Your task to perform on an android device: open app "NewsBreak: Local News & Alerts" Image 0: 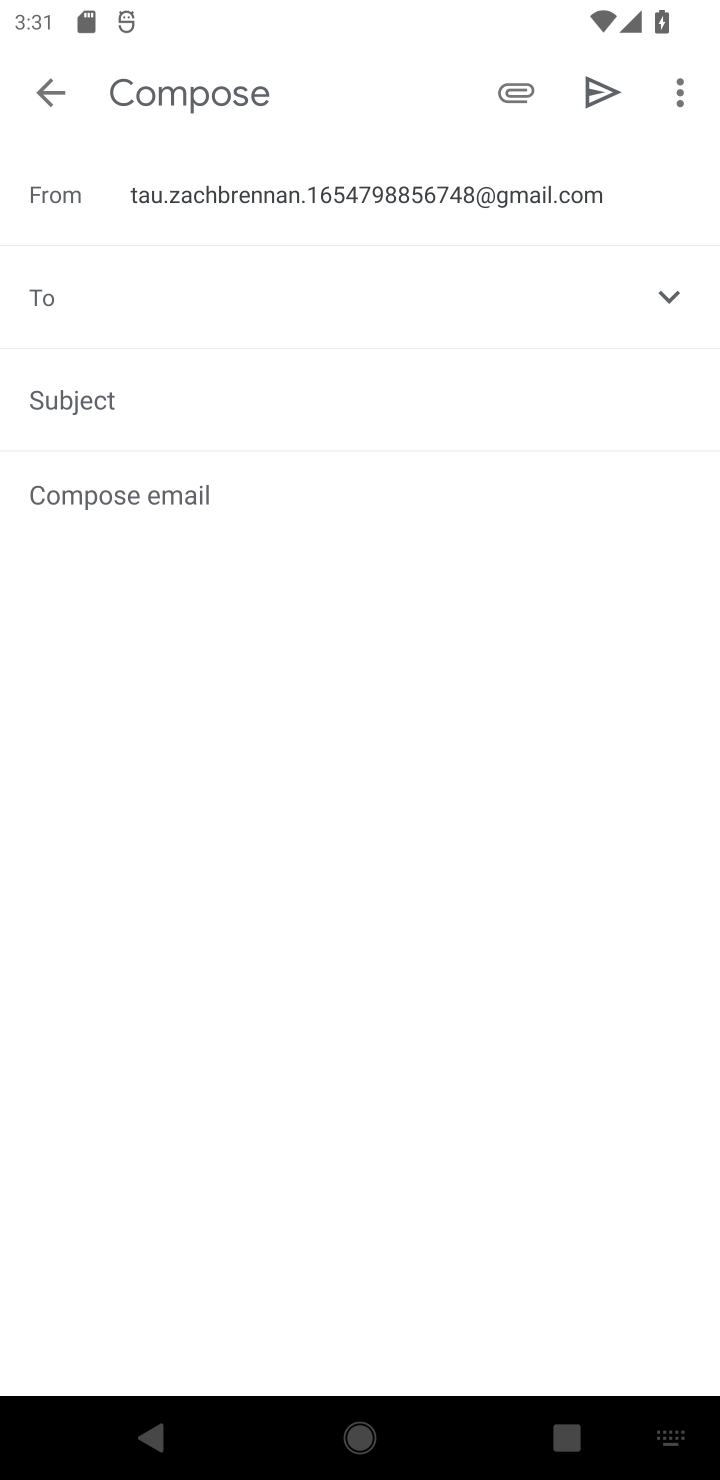
Step 0: press home button
Your task to perform on an android device: open app "NewsBreak: Local News & Alerts" Image 1: 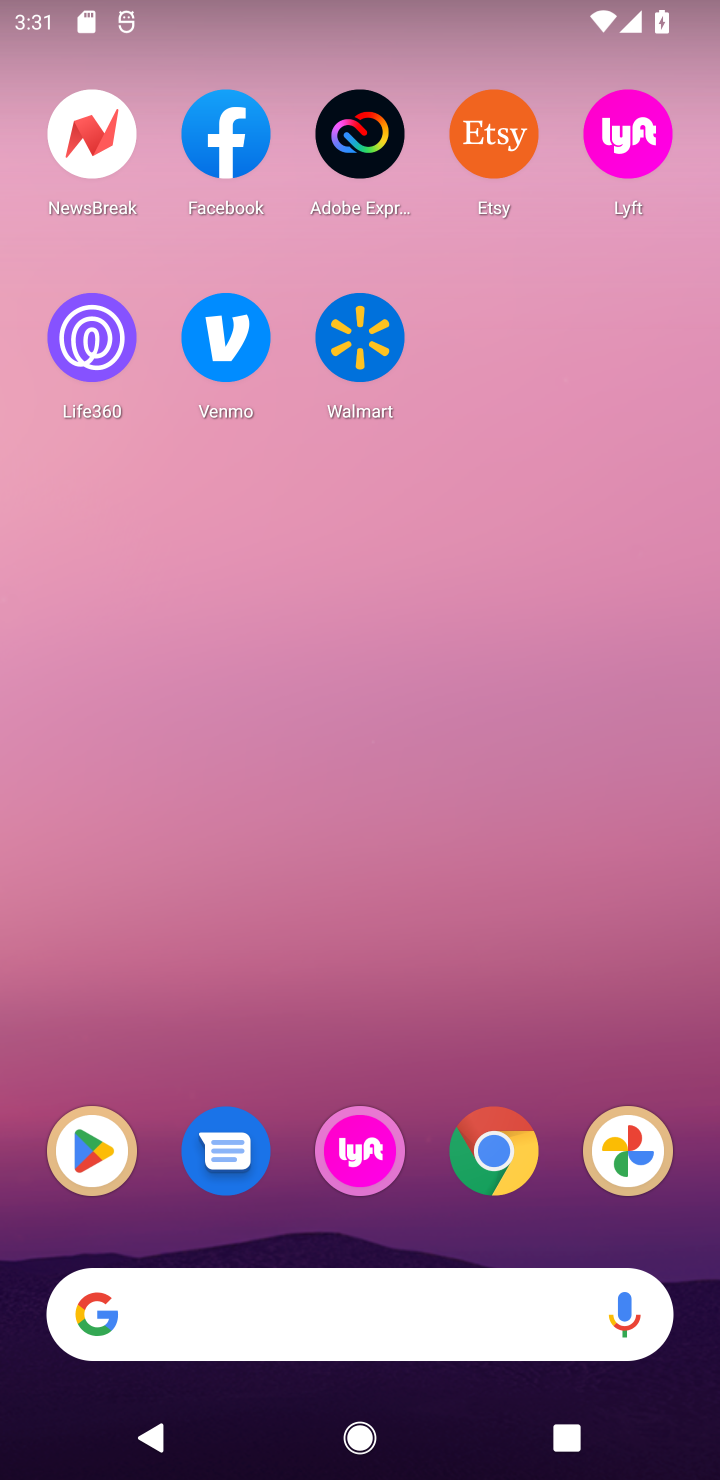
Step 1: drag from (457, 1361) to (457, 441)
Your task to perform on an android device: open app "NewsBreak: Local News & Alerts" Image 2: 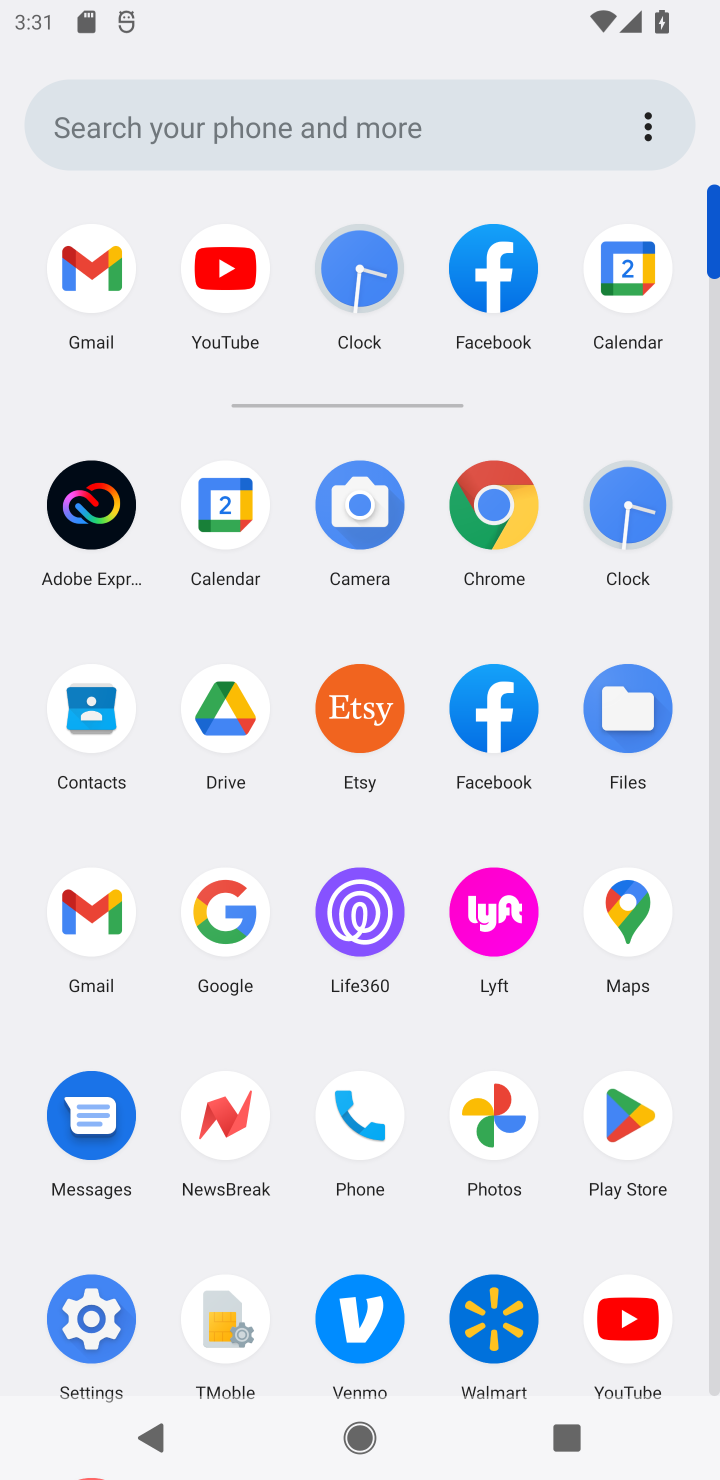
Step 2: click (629, 1099)
Your task to perform on an android device: open app "NewsBreak: Local News & Alerts" Image 3: 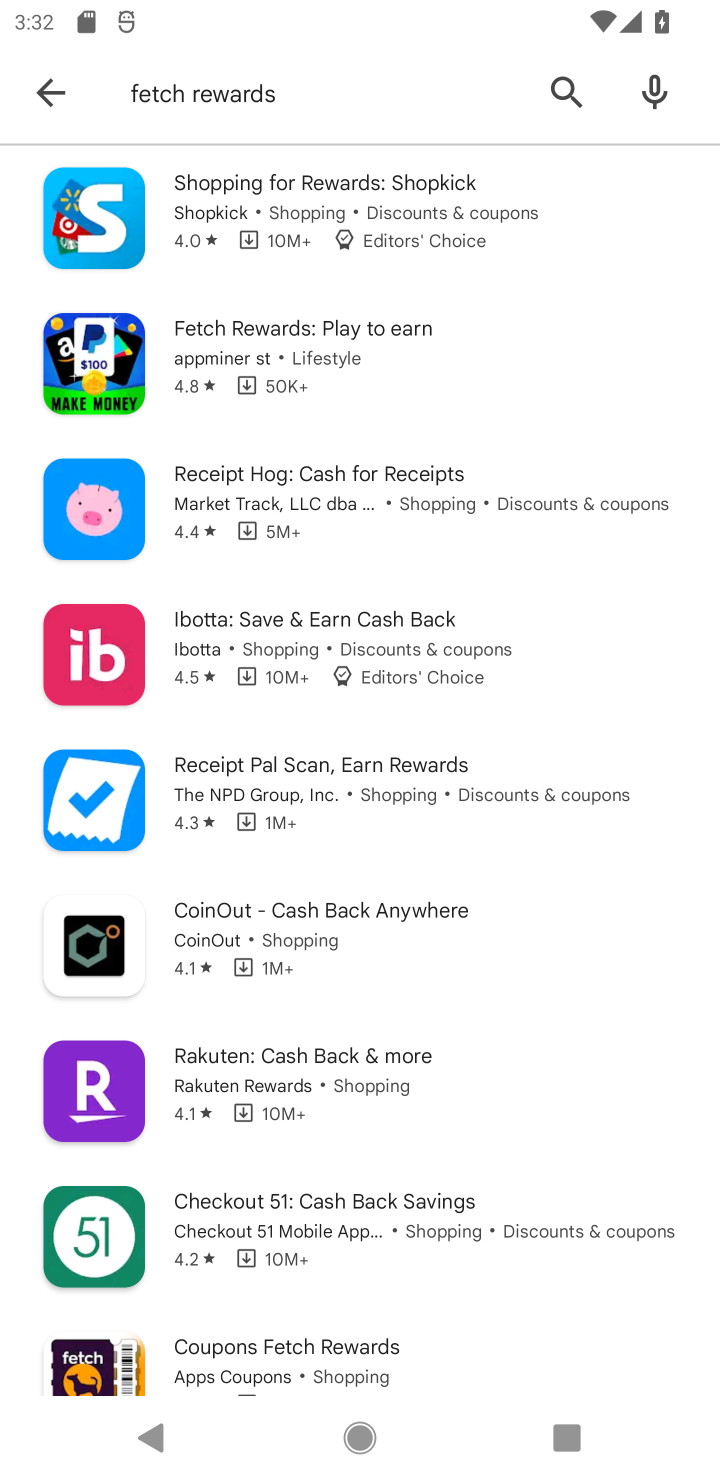
Step 3: click (561, 87)
Your task to perform on an android device: open app "NewsBreak: Local News & Alerts" Image 4: 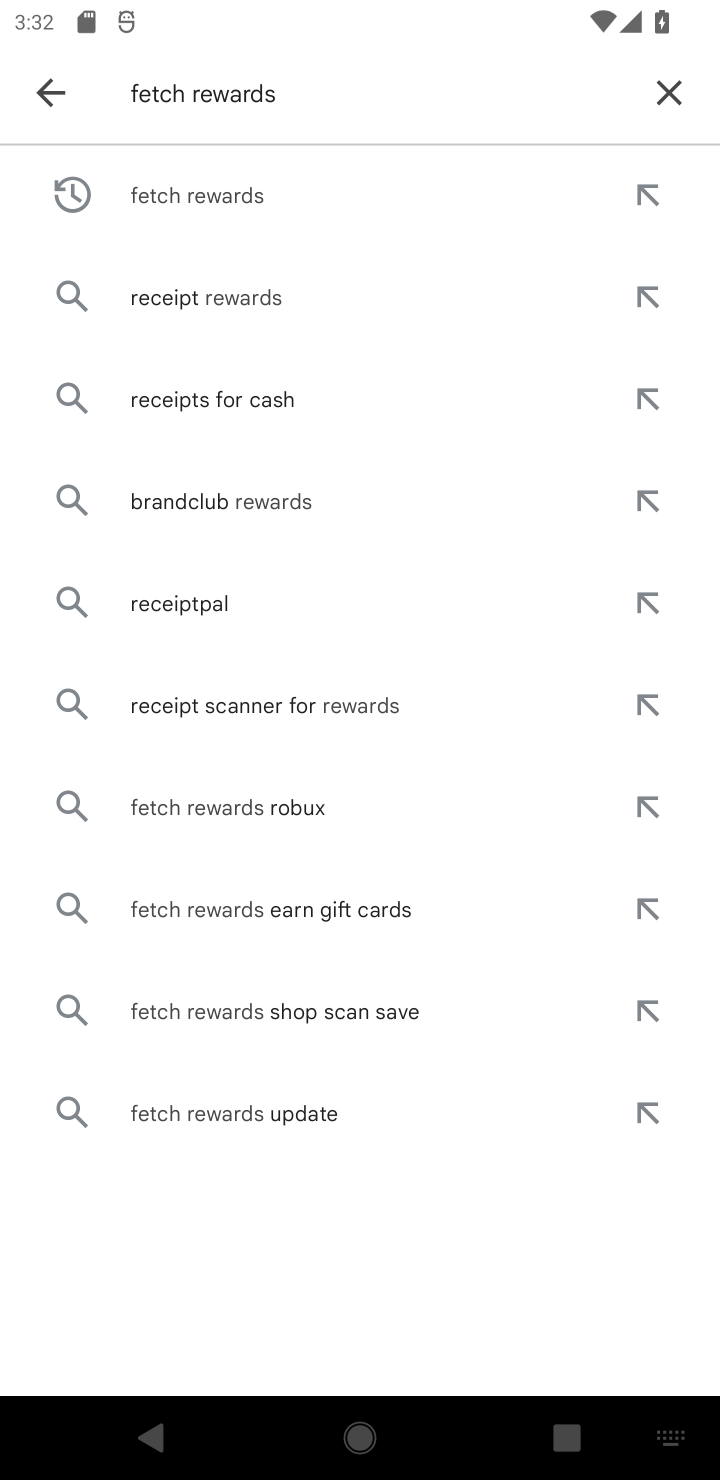
Step 4: click (668, 76)
Your task to perform on an android device: open app "NewsBreak: Local News & Alerts" Image 5: 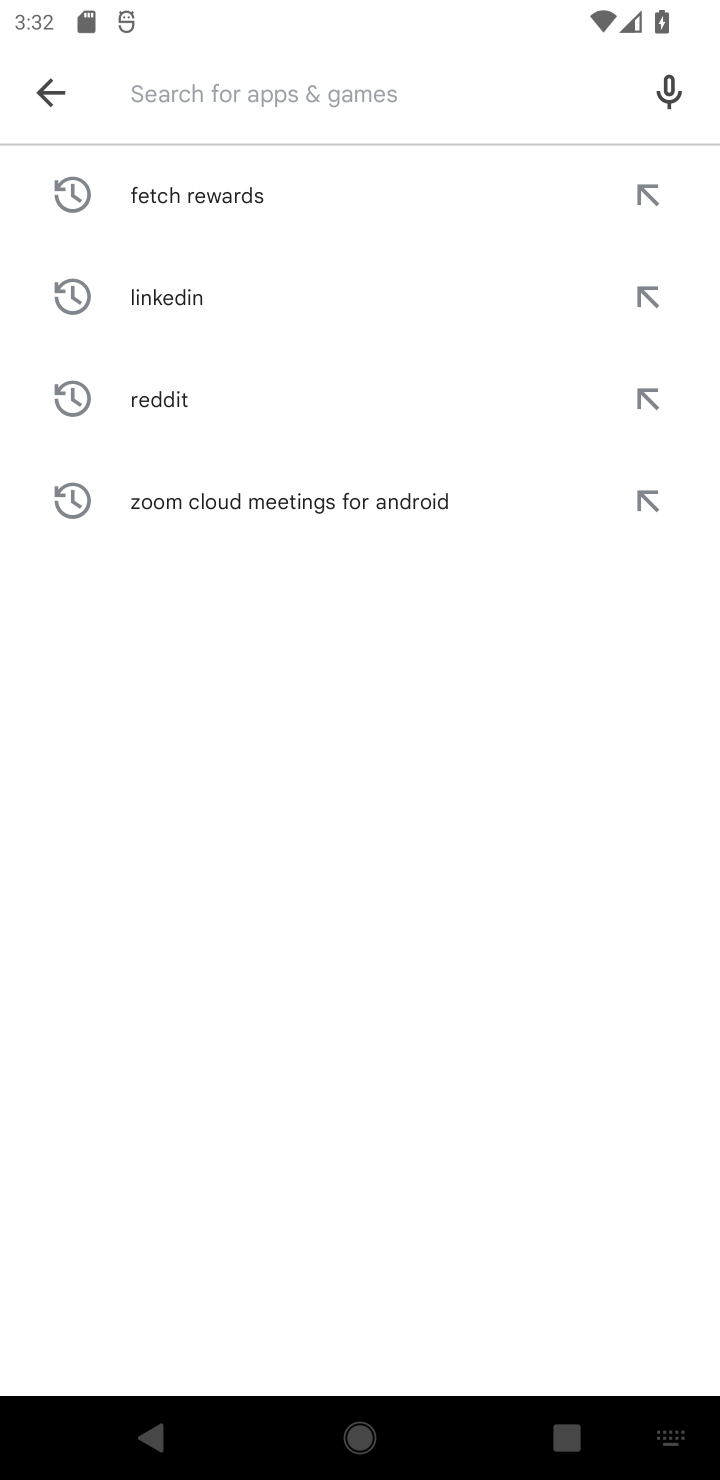
Step 5: type "NewsBreak: Local News & Alerts"
Your task to perform on an android device: open app "NewsBreak: Local News & Alerts" Image 6: 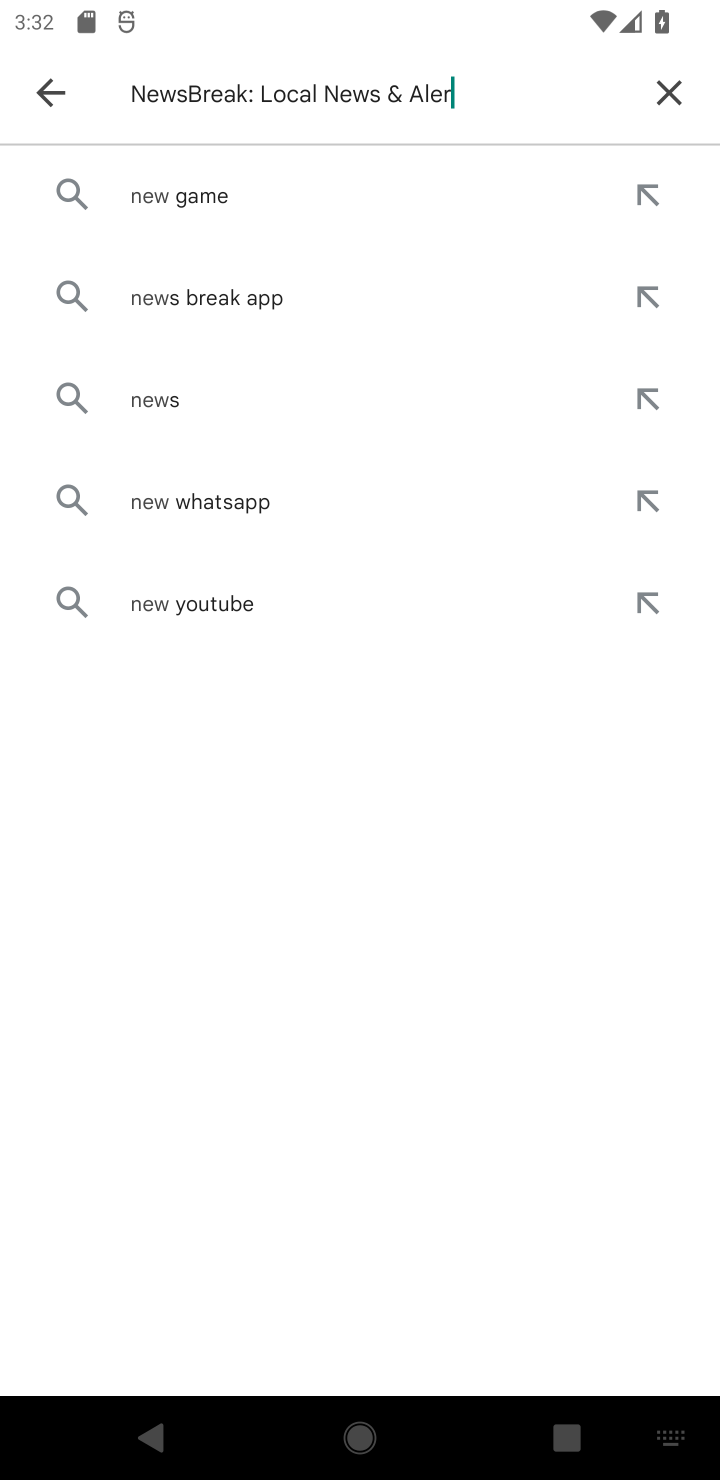
Step 6: type ""
Your task to perform on an android device: open app "NewsBreak: Local News & Alerts" Image 7: 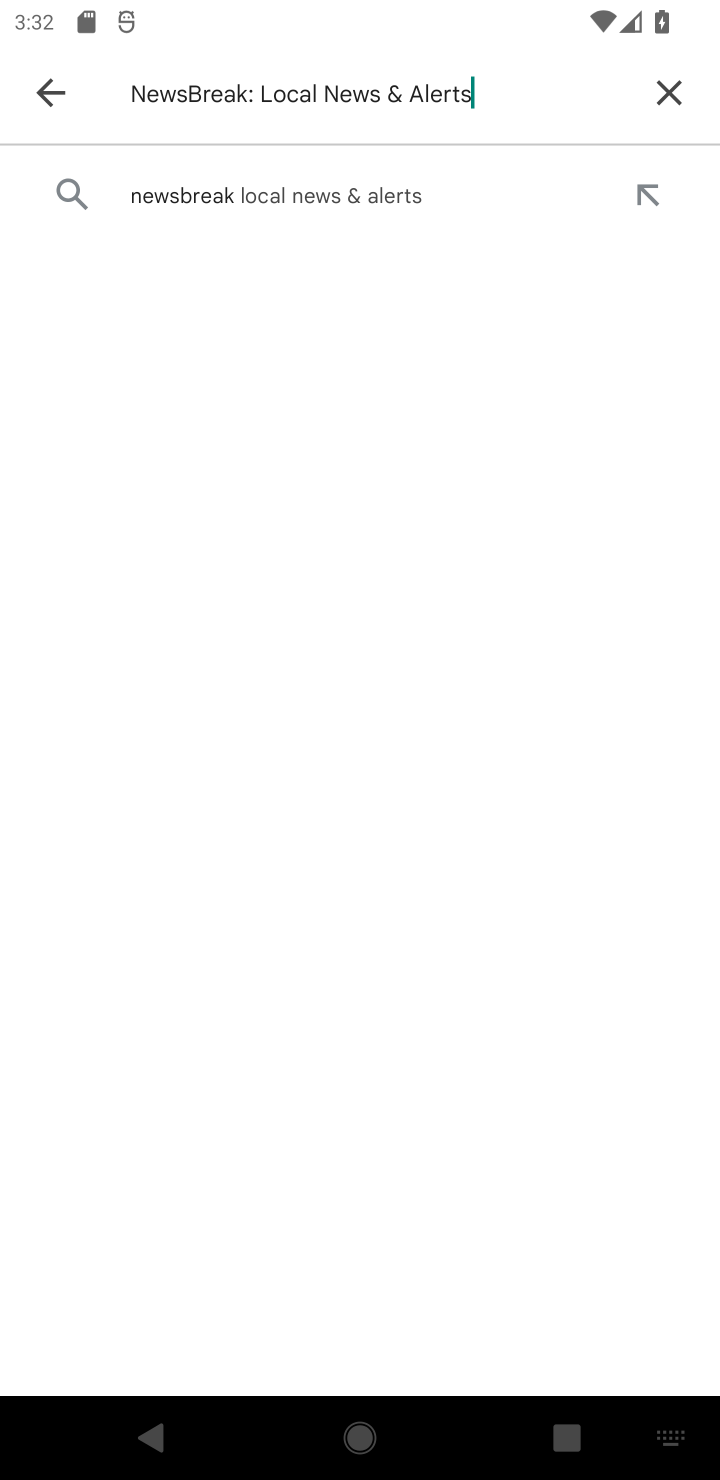
Step 7: click (215, 188)
Your task to perform on an android device: open app "NewsBreak: Local News & Alerts" Image 8: 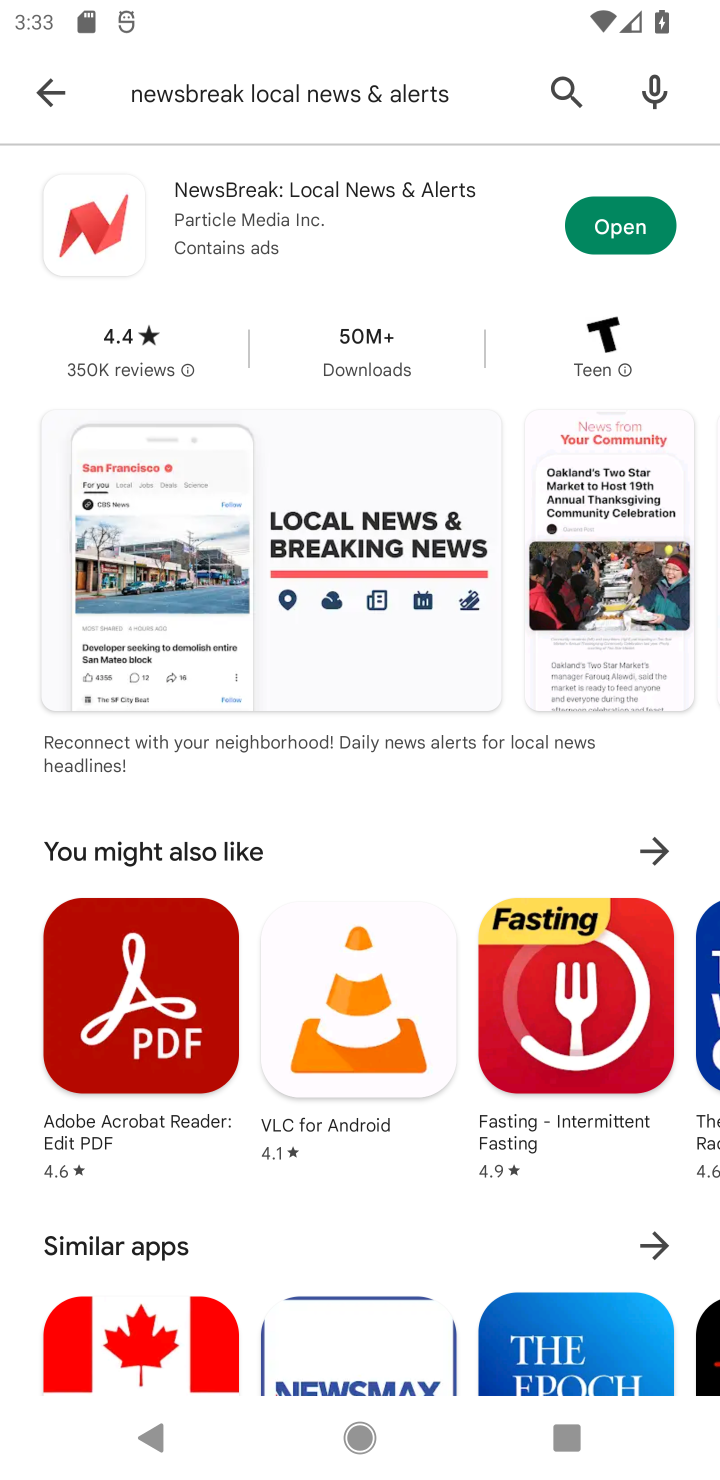
Step 8: click (634, 238)
Your task to perform on an android device: open app "NewsBreak: Local News & Alerts" Image 9: 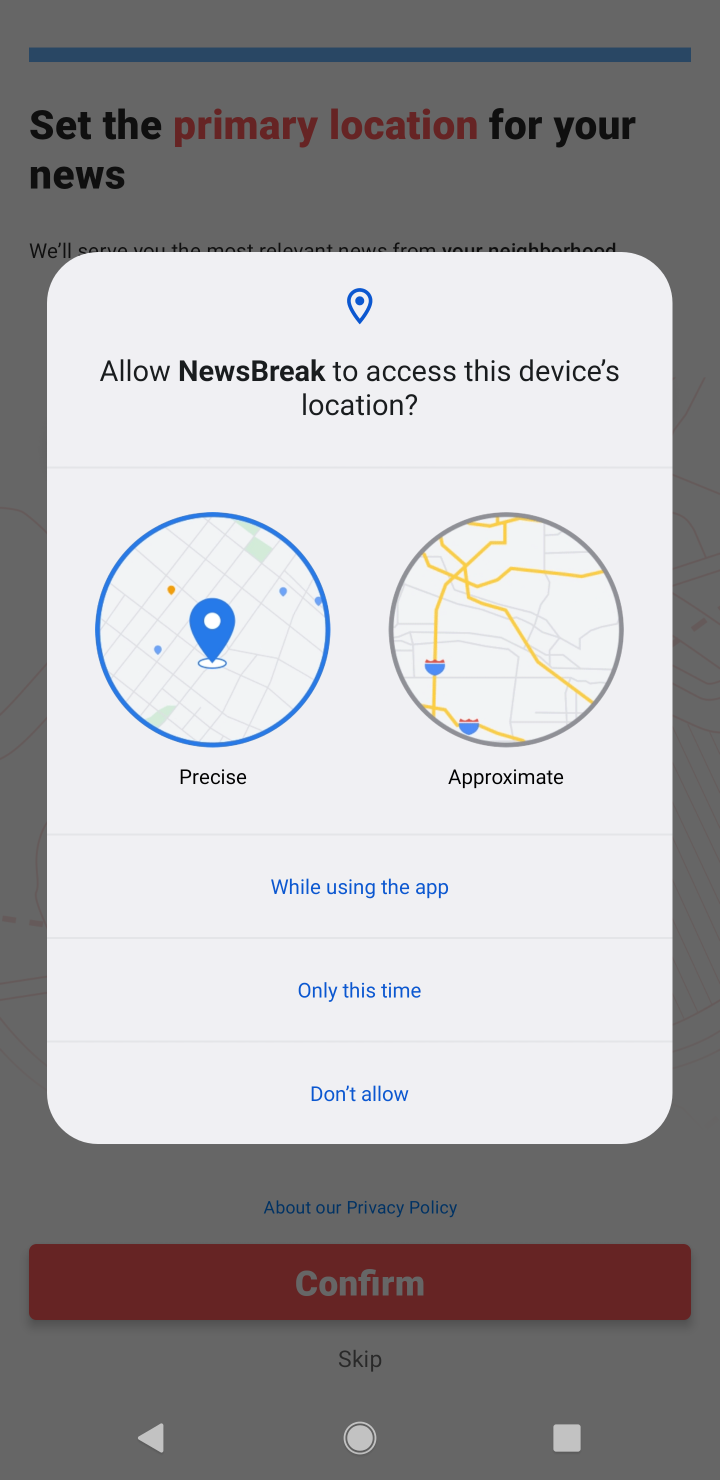
Step 9: task complete